Your task to perform on an android device: turn pop-ups on in chrome Image 0: 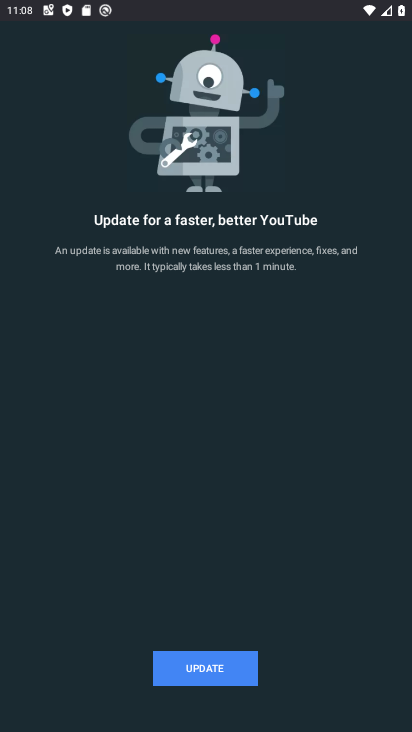
Step 0: press home button
Your task to perform on an android device: turn pop-ups on in chrome Image 1: 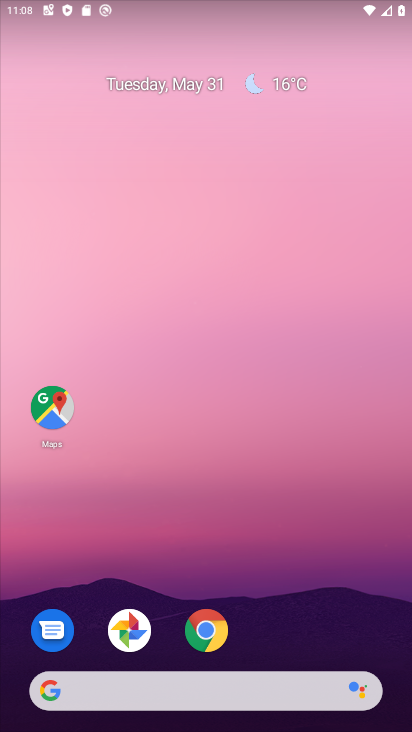
Step 1: drag from (283, 600) to (307, 304)
Your task to perform on an android device: turn pop-ups on in chrome Image 2: 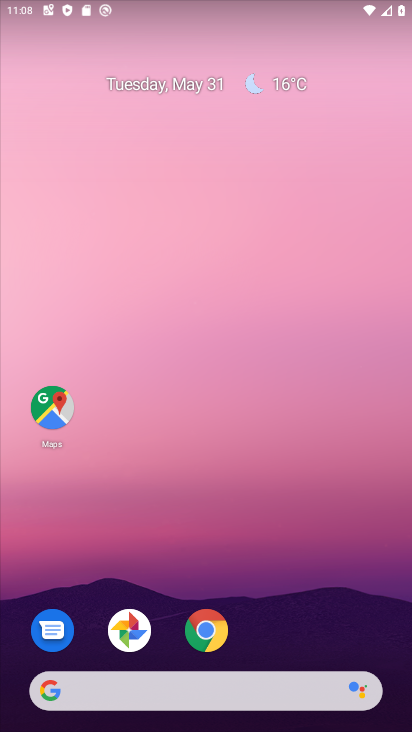
Step 2: click (199, 614)
Your task to perform on an android device: turn pop-ups on in chrome Image 3: 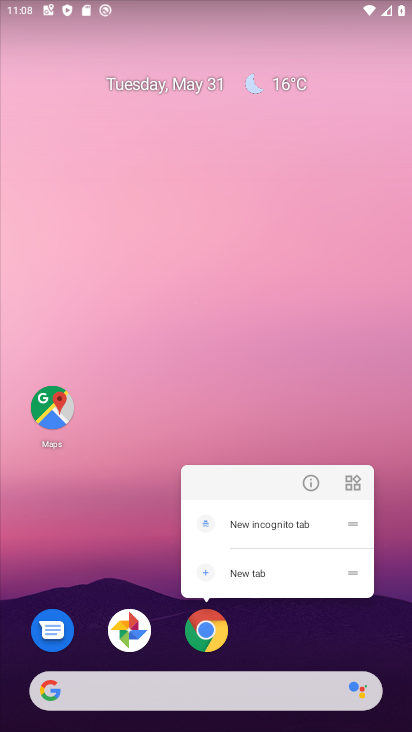
Step 3: click (206, 640)
Your task to perform on an android device: turn pop-ups on in chrome Image 4: 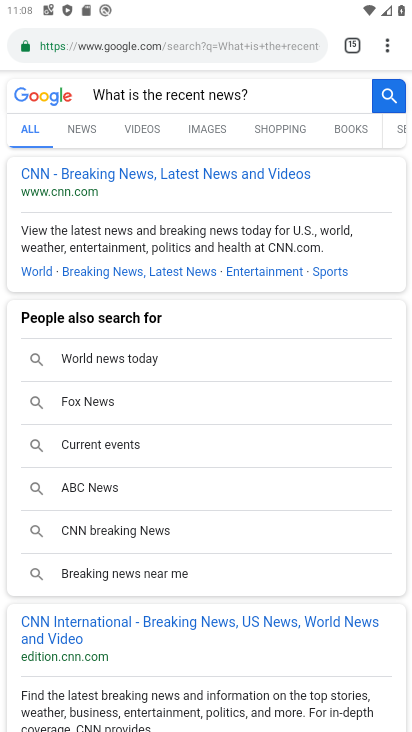
Step 4: click (380, 36)
Your task to perform on an android device: turn pop-ups on in chrome Image 5: 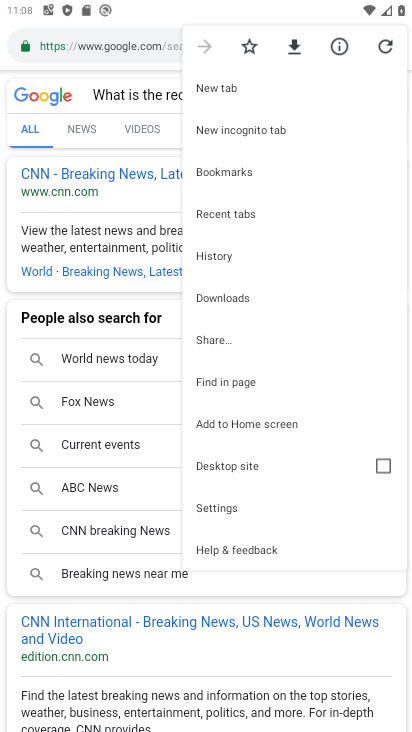
Step 5: click (243, 505)
Your task to perform on an android device: turn pop-ups on in chrome Image 6: 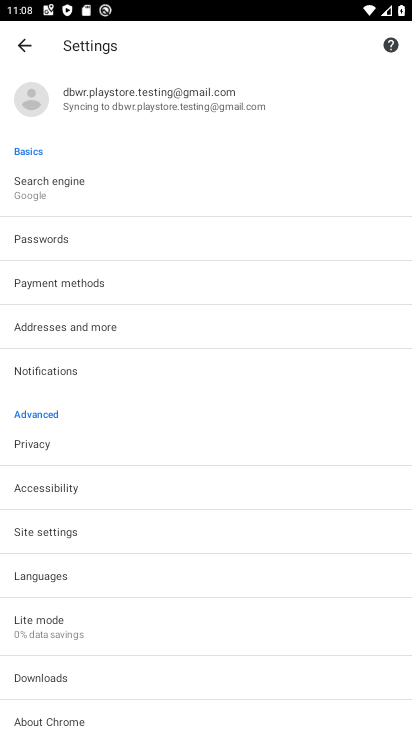
Step 6: drag from (60, 640) to (104, 489)
Your task to perform on an android device: turn pop-ups on in chrome Image 7: 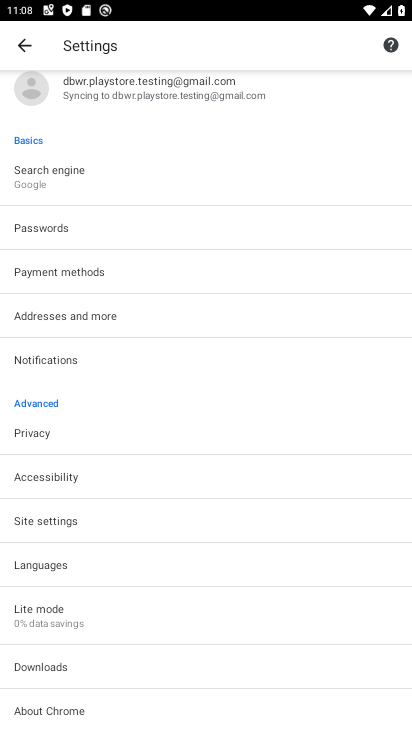
Step 7: click (88, 512)
Your task to perform on an android device: turn pop-ups on in chrome Image 8: 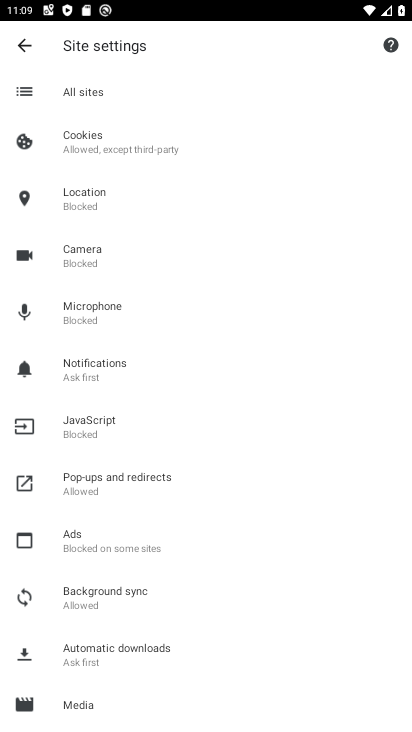
Step 8: drag from (128, 584) to (168, 344)
Your task to perform on an android device: turn pop-ups on in chrome Image 9: 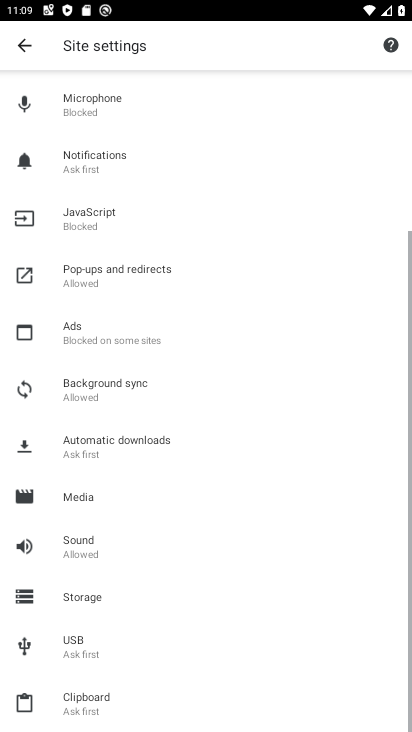
Step 9: click (117, 272)
Your task to perform on an android device: turn pop-ups on in chrome Image 10: 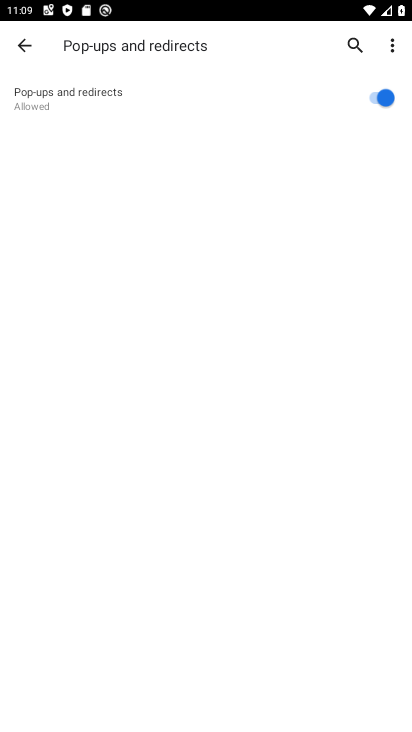
Step 10: task complete